Your task to perform on an android device: Open Yahoo.com Image 0: 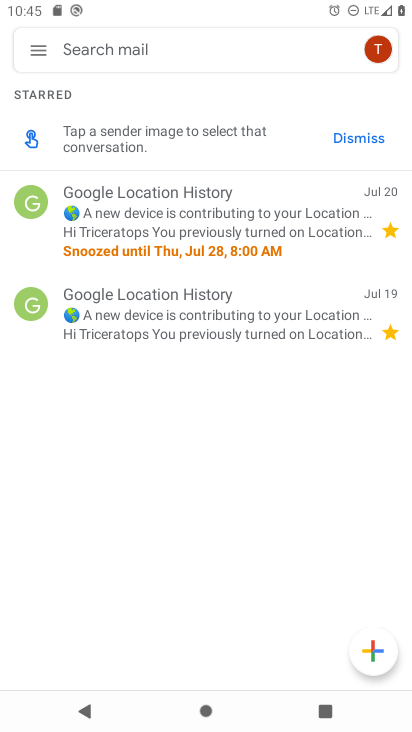
Step 0: press home button
Your task to perform on an android device: Open Yahoo.com Image 1: 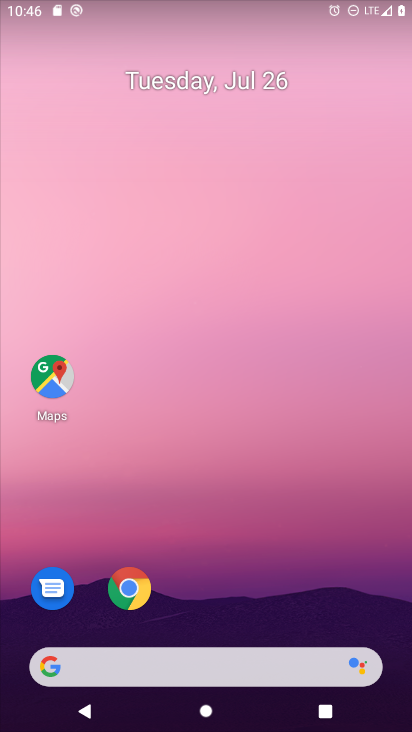
Step 1: drag from (196, 639) to (238, 4)
Your task to perform on an android device: Open Yahoo.com Image 2: 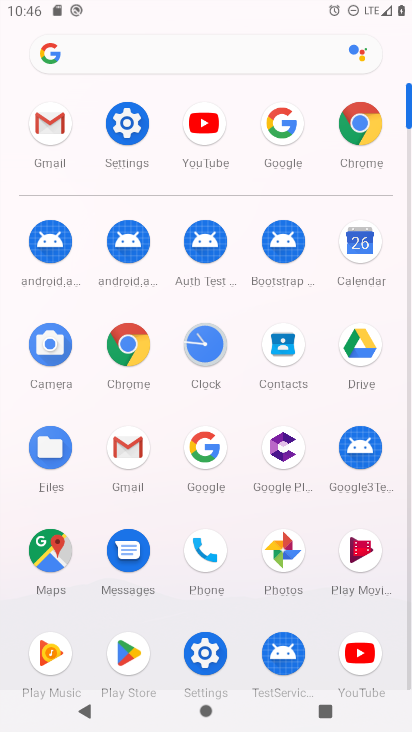
Step 2: click (361, 159)
Your task to perform on an android device: Open Yahoo.com Image 3: 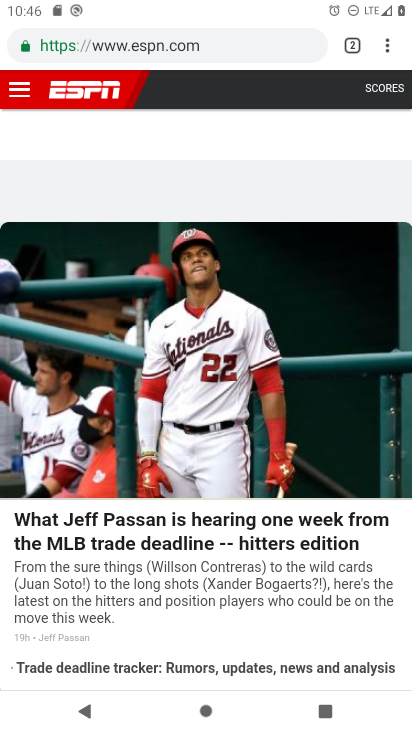
Step 3: drag from (351, 51) to (250, 277)
Your task to perform on an android device: Open Yahoo.com Image 4: 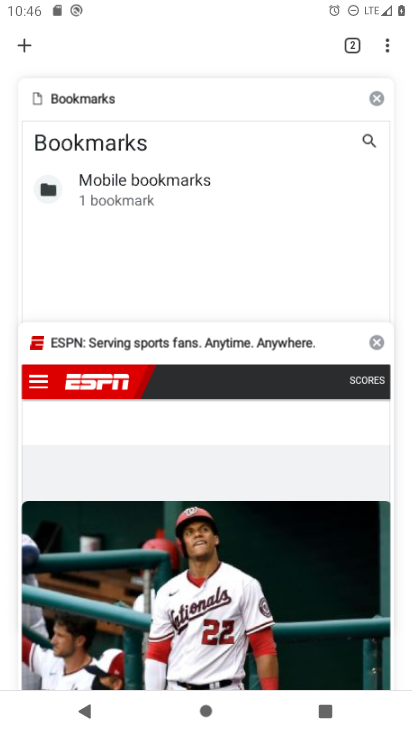
Step 4: click (30, 49)
Your task to perform on an android device: Open Yahoo.com Image 5: 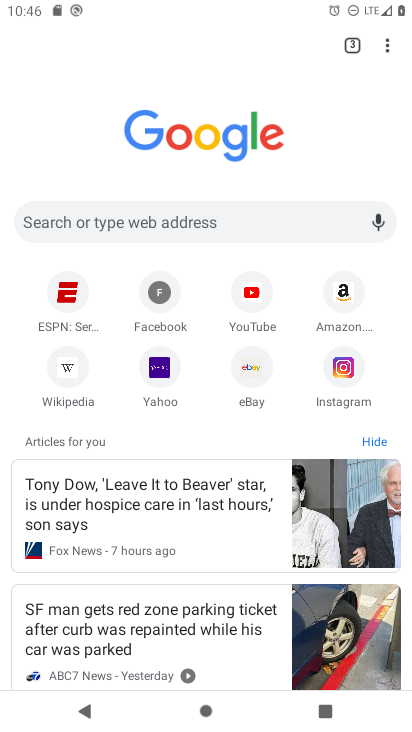
Step 5: click (172, 399)
Your task to perform on an android device: Open Yahoo.com Image 6: 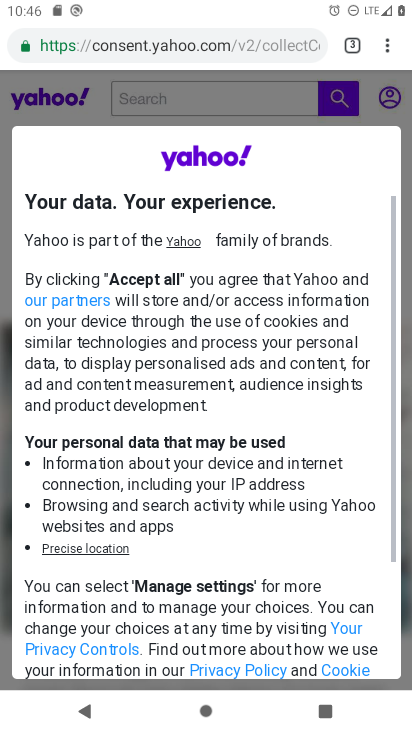
Step 6: task complete